Your task to perform on an android device: turn notification dots off Image 0: 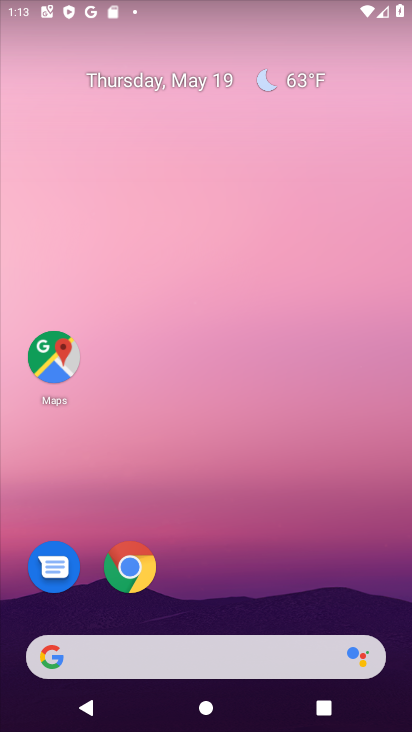
Step 0: drag from (329, 516) to (282, 111)
Your task to perform on an android device: turn notification dots off Image 1: 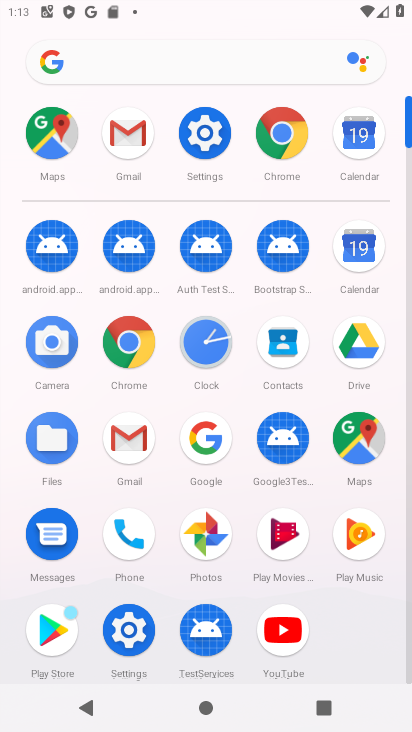
Step 1: click (215, 156)
Your task to perform on an android device: turn notification dots off Image 2: 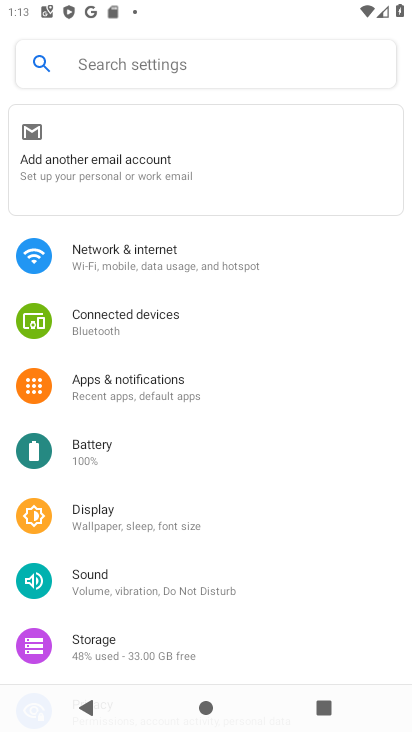
Step 2: click (167, 383)
Your task to perform on an android device: turn notification dots off Image 3: 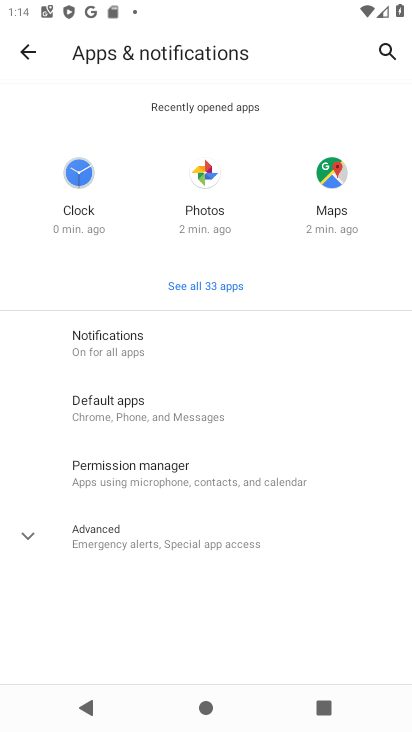
Step 3: click (111, 335)
Your task to perform on an android device: turn notification dots off Image 4: 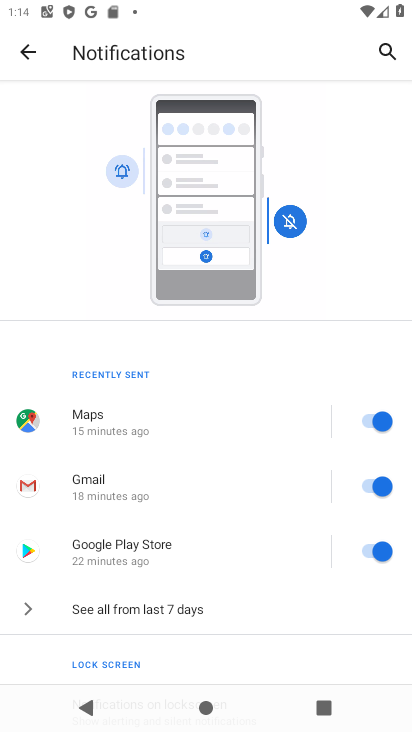
Step 4: drag from (187, 604) to (132, 232)
Your task to perform on an android device: turn notification dots off Image 5: 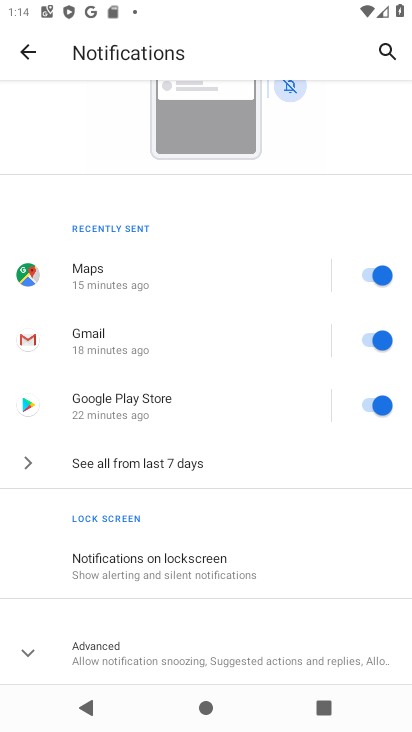
Step 5: click (120, 651)
Your task to perform on an android device: turn notification dots off Image 6: 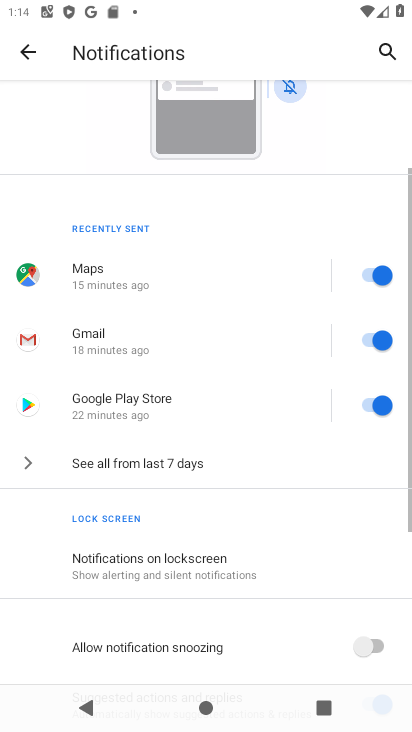
Step 6: drag from (120, 650) to (124, 336)
Your task to perform on an android device: turn notification dots off Image 7: 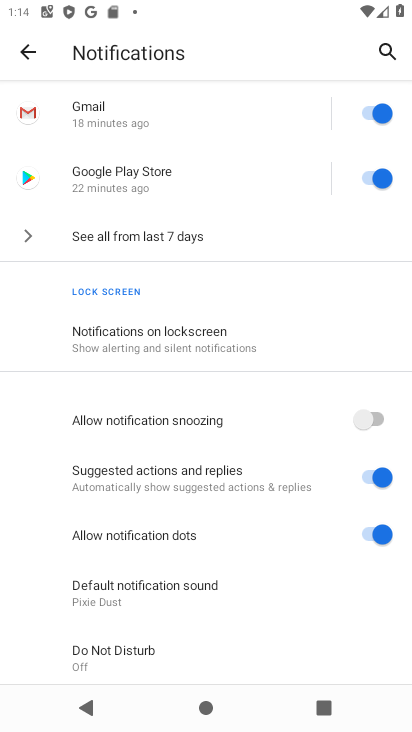
Step 7: click (368, 534)
Your task to perform on an android device: turn notification dots off Image 8: 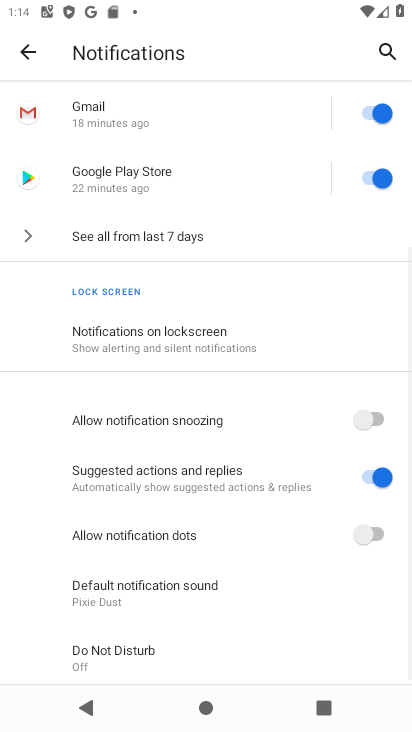
Step 8: task complete